Your task to perform on an android device: Open Amazon Image 0: 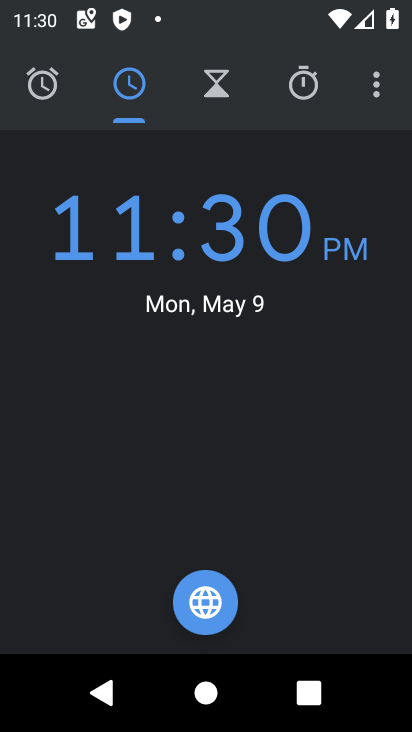
Step 0: press home button
Your task to perform on an android device: Open Amazon Image 1: 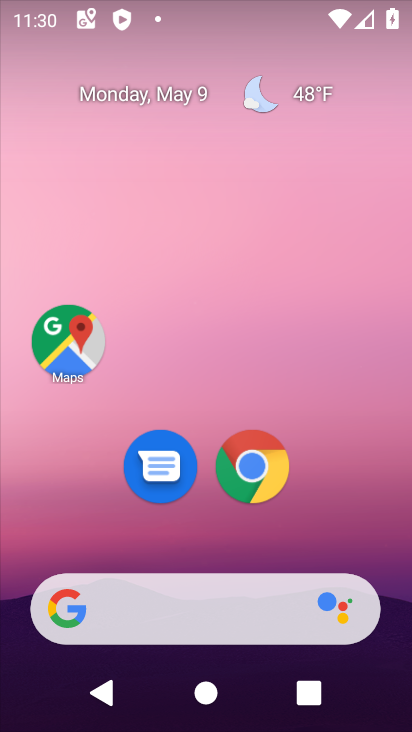
Step 1: click (254, 465)
Your task to perform on an android device: Open Amazon Image 2: 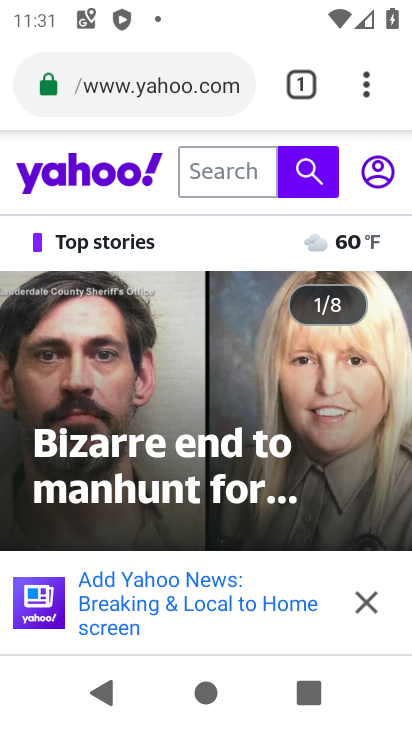
Step 2: click (361, 87)
Your task to perform on an android device: Open Amazon Image 3: 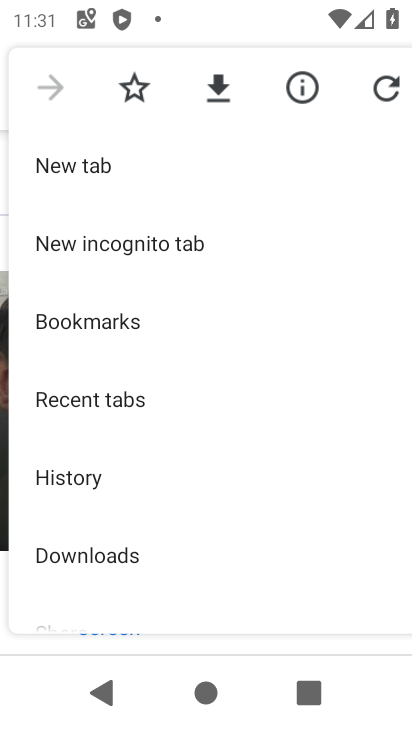
Step 3: click (73, 156)
Your task to perform on an android device: Open Amazon Image 4: 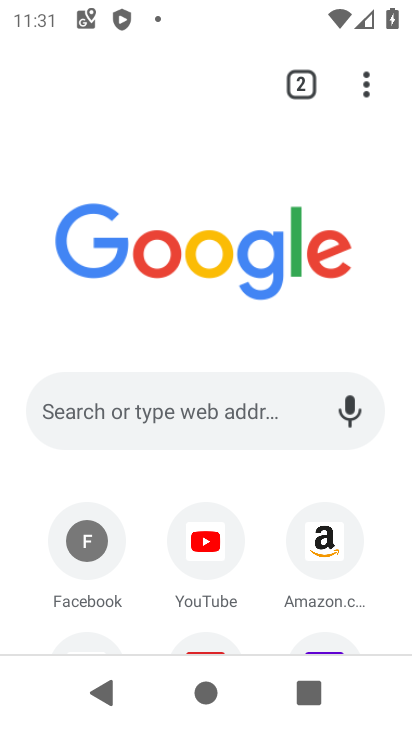
Step 4: click (318, 537)
Your task to perform on an android device: Open Amazon Image 5: 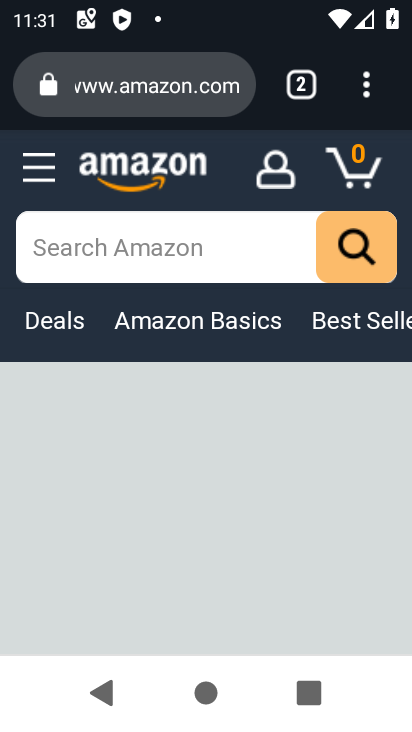
Step 5: task complete